Your task to perform on an android device: Search for "usb-a to usb-b" on costco, select the first entry, and add it to the cart. Image 0: 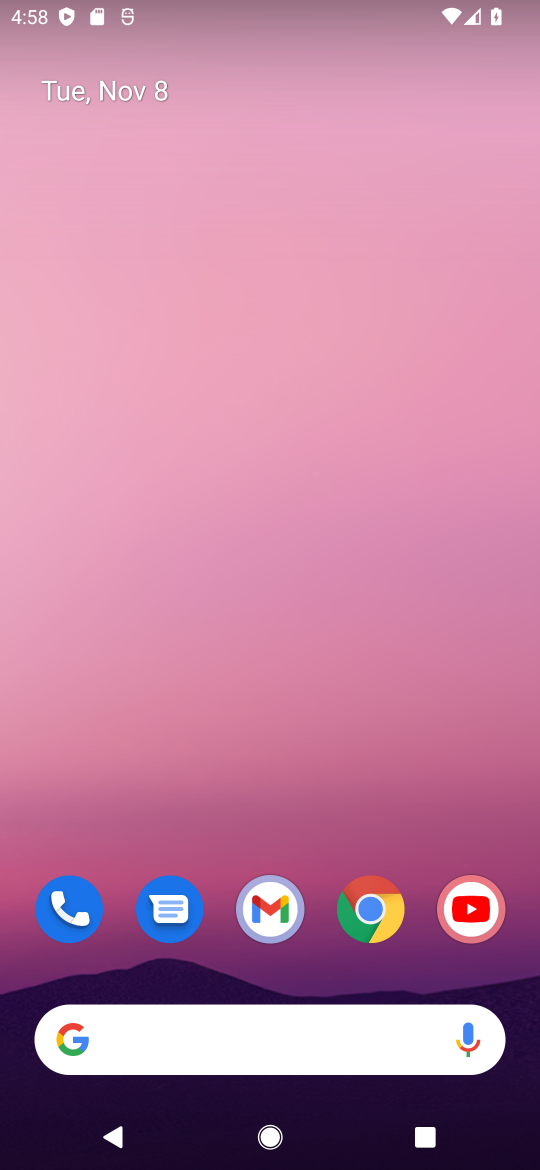
Step 0: click (378, 918)
Your task to perform on an android device: Search for "usb-a to usb-b" on costco, select the first entry, and add it to the cart. Image 1: 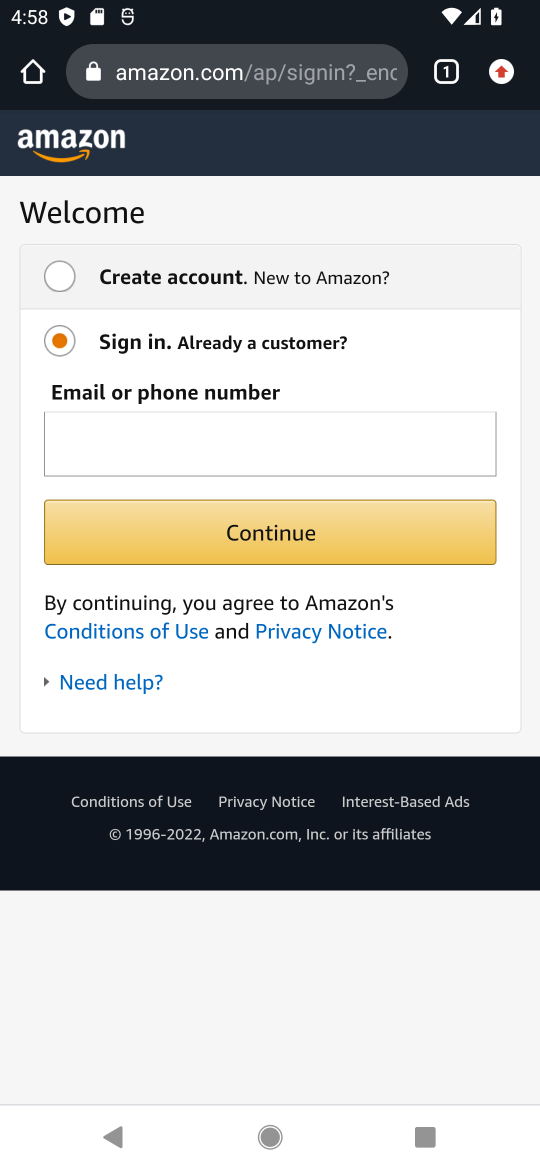
Step 1: click (263, 70)
Your task to perform on an android device: Search for "usb-a to usb-b" on costco, select the first entry, and add it to the cart. Image 2: 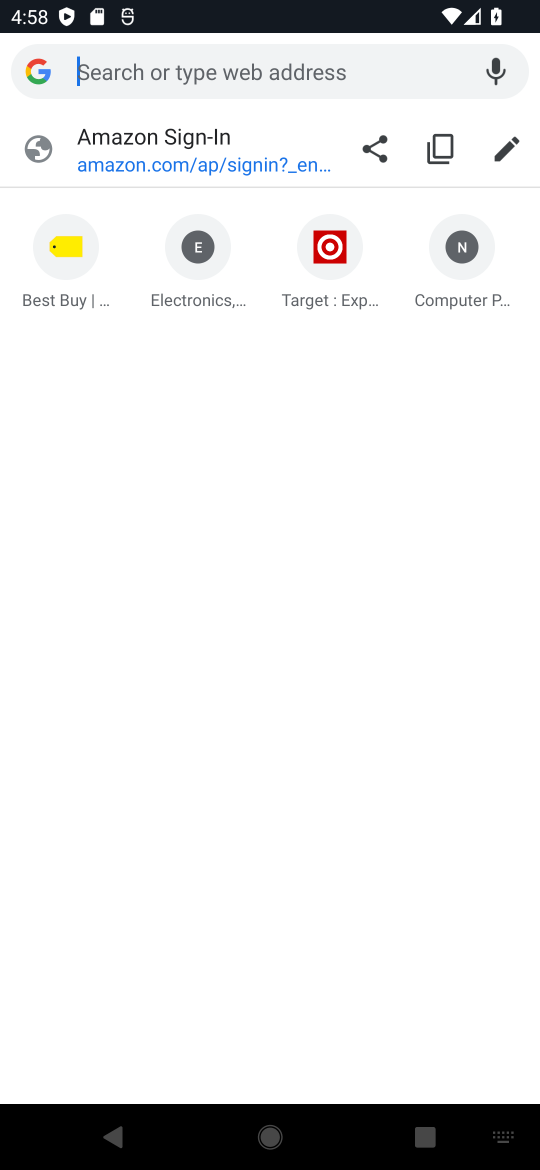
Step 2: type "costco"
Your task to perform on an android device: Search for "usb-a to usb-b" on costco, select the first entry, and add it to the cart. Image 3: 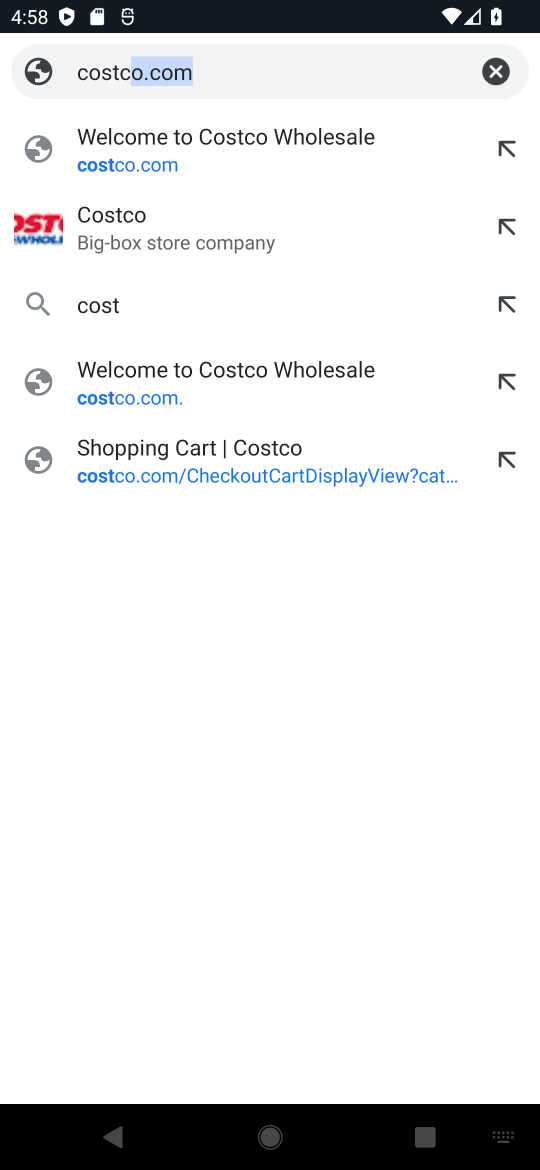
Step 3: press enter
Your task to perform on an android device: Search for "usb-a to usb-b" on costco, select the first entry, and add it to the cart. Image 4: 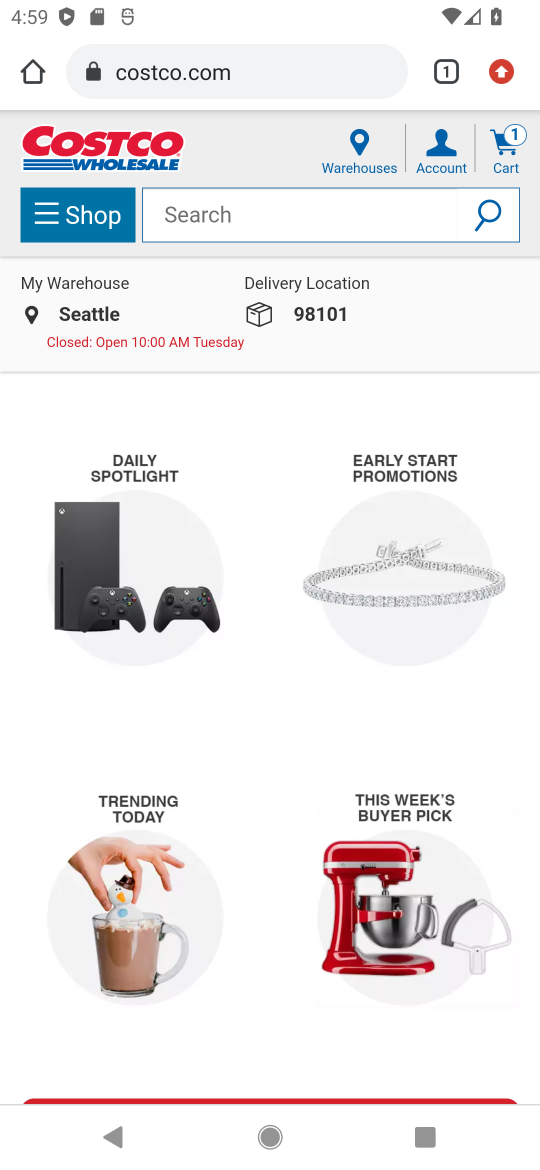
Step 4: click (244, 208)
Your task to perform on an android device: Search for "usb-a to usb-b" on costco, select the first entry, and add it to the cart. Image 5: 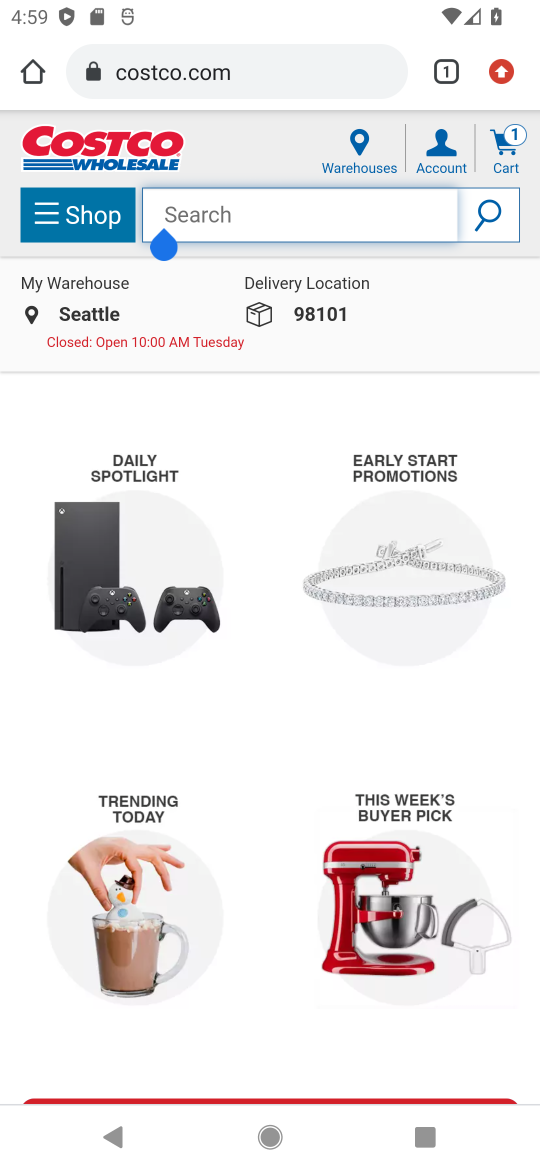
Step 5: type "usb-a to usb-b"
Your task to perform on an android device: Search for "usb-a to usb-b" on costco, select the first entry, and add it to the cart. Image 6: 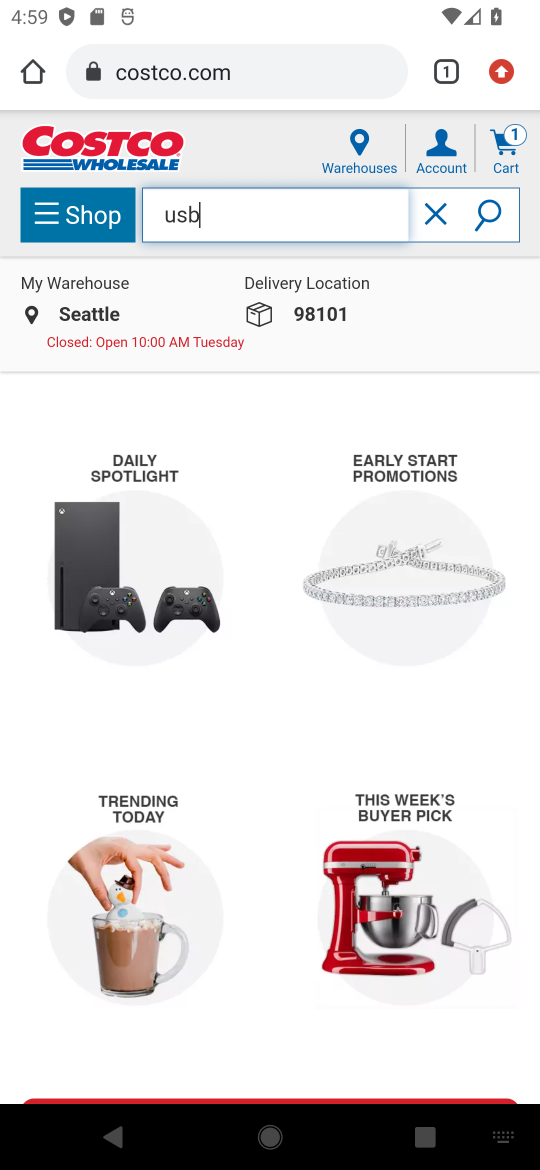
Step 6: press enter
Your task to perform on an android device: Search for "usb-a to usb-b" on costco, select the first entry, and add it to the cart. Image 7: 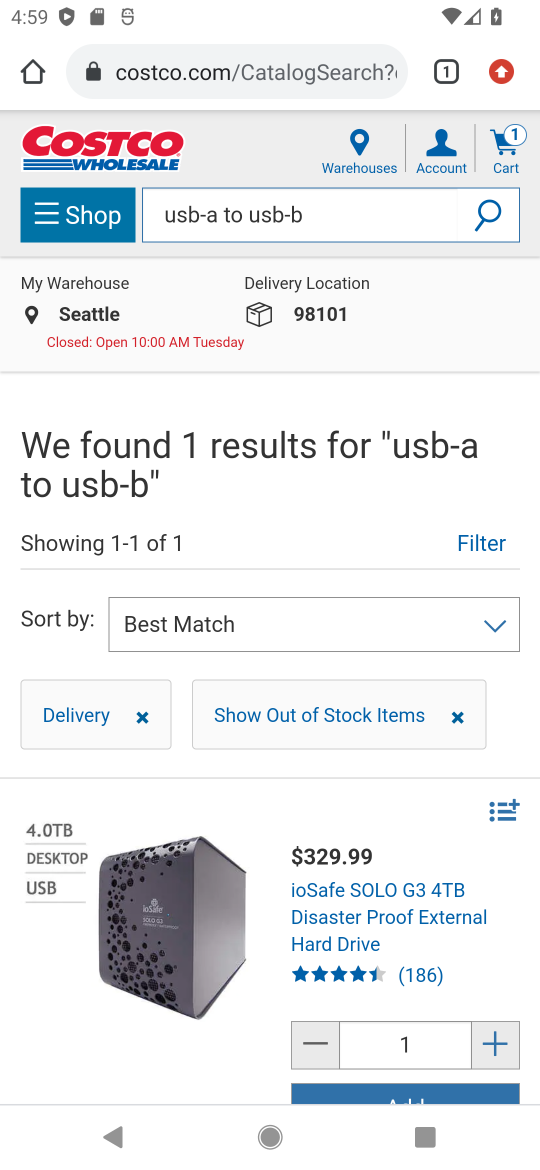
Step 7: drag from (227, 996) to (367, 650)
Your task to perform on an android device: Search for "usb-a to usb-b" on costco, select the first entry, and add it to the cart. Image 8: 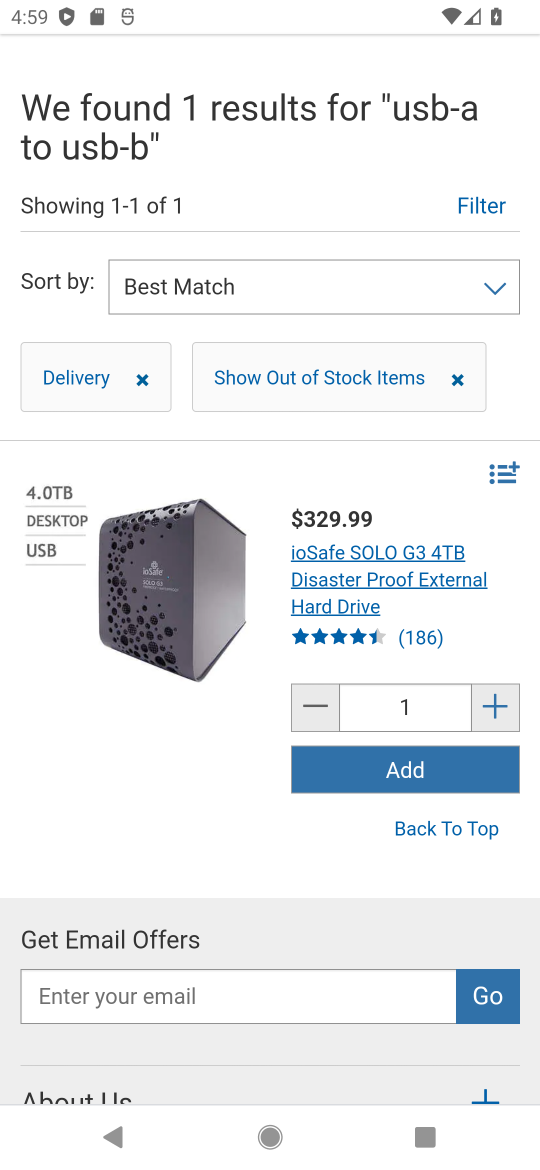
Step 8: click (338, 584)
Your task to perform on an android device: Search for "usb-a to usb-b" on costco, select the first entry, and add it to the cart. Image 9: 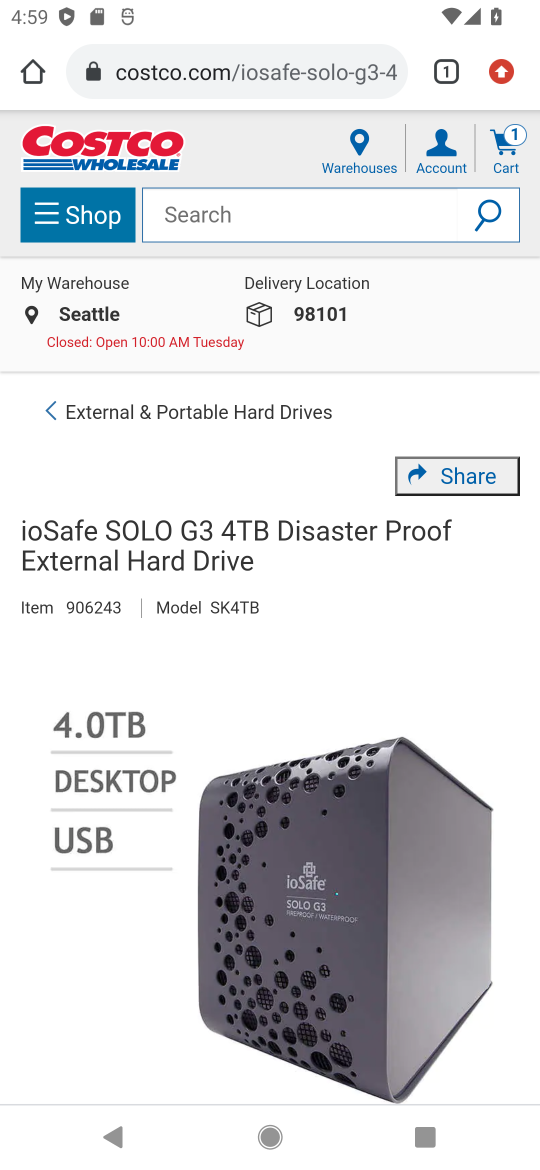
Step 9: task complete